Your task to perform on an android device: open app "Google Pay: Save, Pay, Manage" (install if not already installed) Image 0: 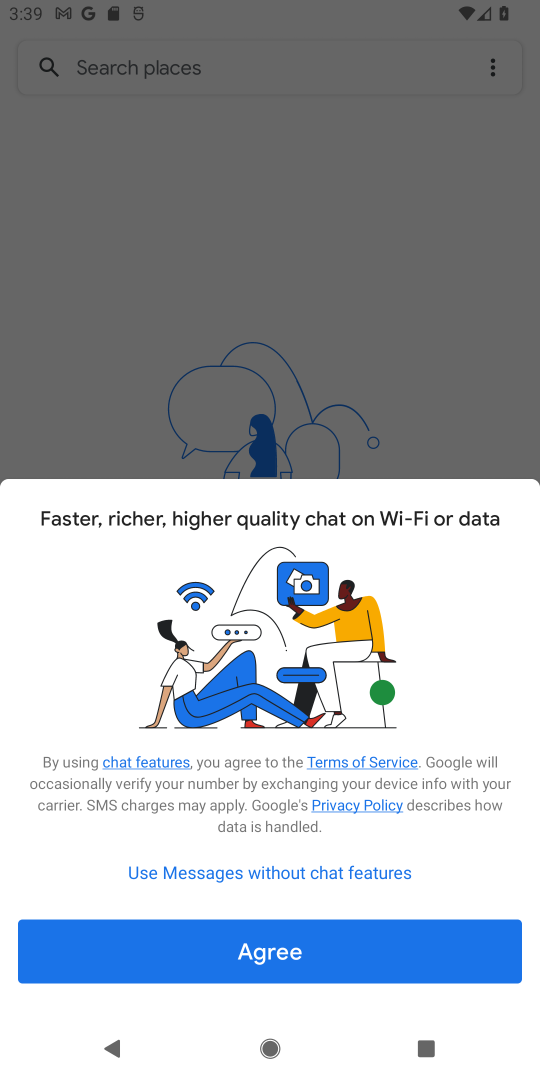
Step 0: press home button
Your task to perform on an android device: open app "Google Pay: Save, Pay, Manage" (install if not already installed) Image 1: 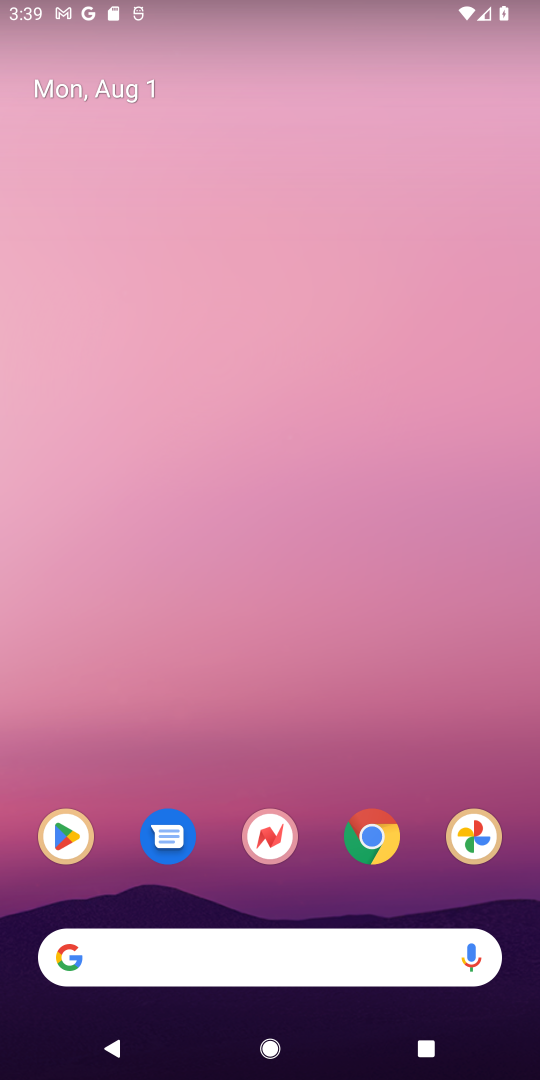
Step 1: drag from (255, 756) to (245, 511)
Your task to perform on an android device: open app "Google Pay: Save, Pay, Manage" (install if not already installed) Image 2: 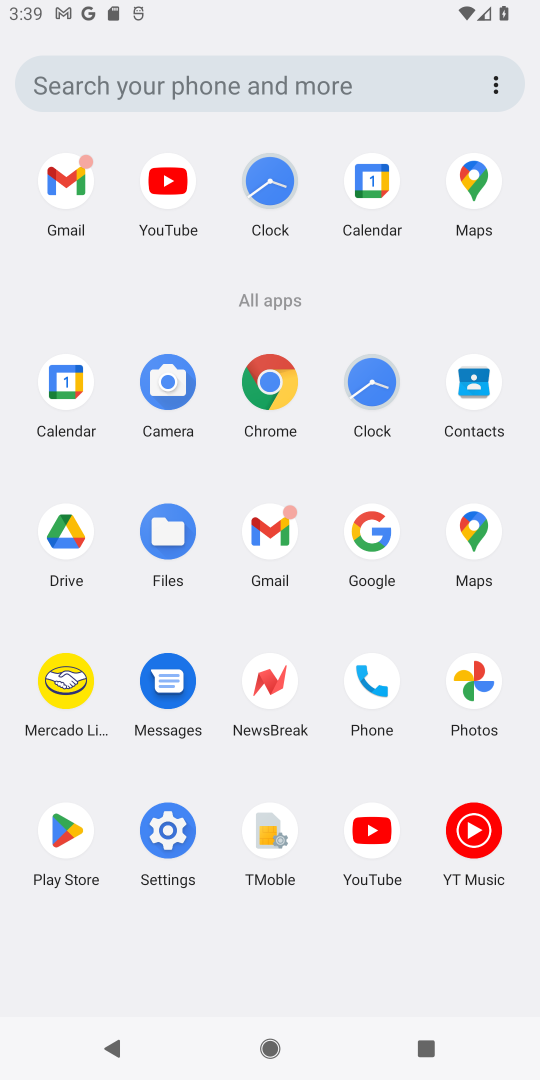
Step 2: click (72, 824)
Your task to perform on an android device: open app "Google Pay: Save, Pay, Manage" (install if not already installed) Image 3: 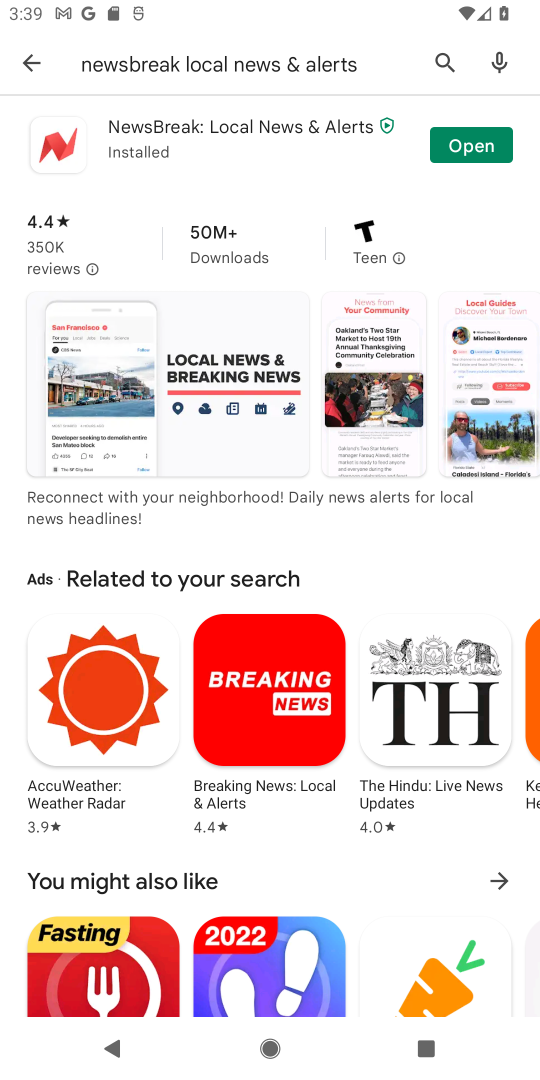
Step 3: click (25, 60)
Your task to perform on an android device: open app "Google Pay: Save, Pay, Manage" (install if not already installed) Image 4: 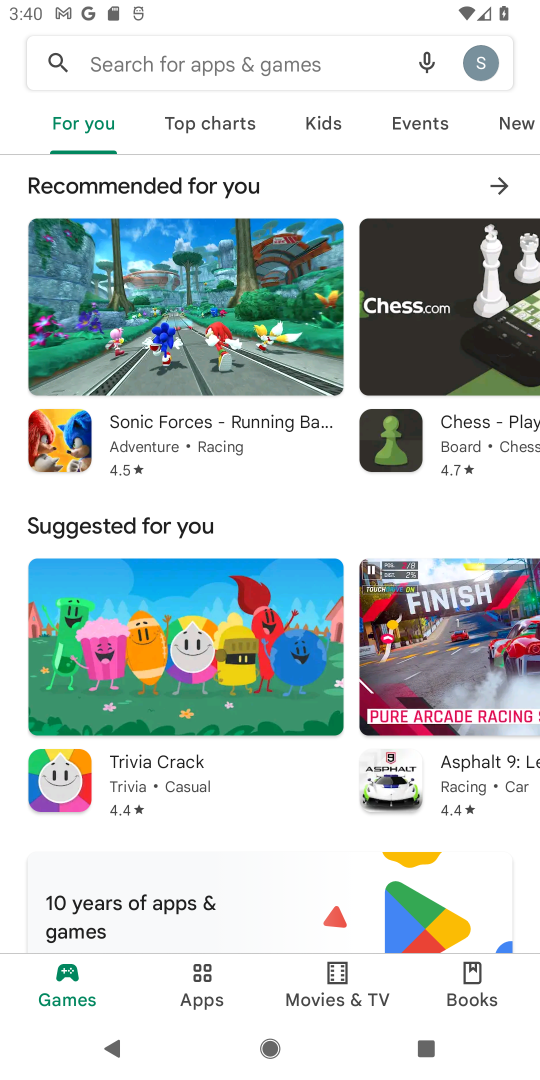
Step 4: type "Google Pay: Save, Pay, Manage"
Your task to perform on an android device: open app "Google Pay: Save, Pay, Manage" (install if not already installed) Image 5: 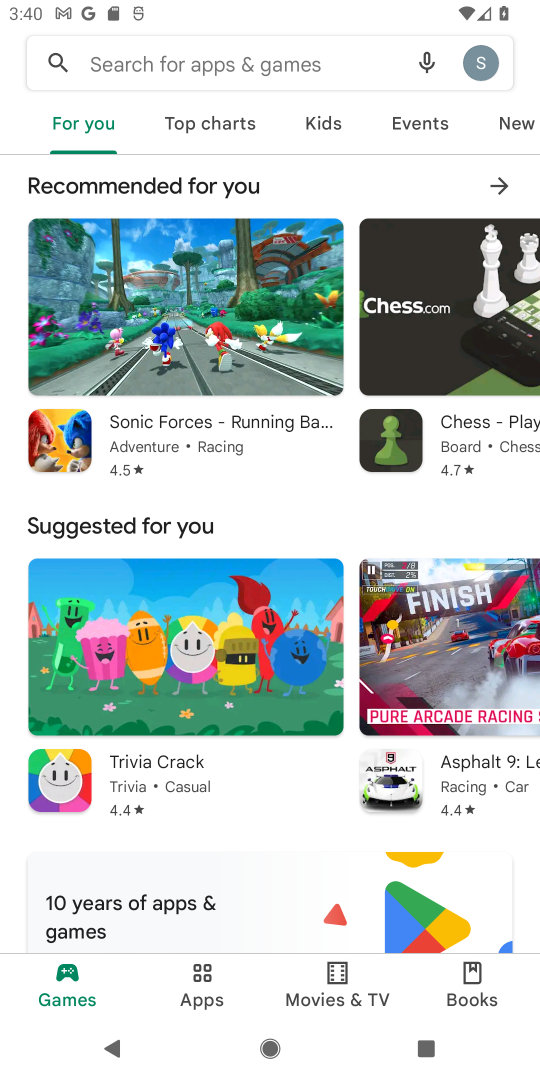
Step 5: click (171, 65)
Your task to perform on an android device: open app "Google Pay: Save, Pay, Manage" (install if not already installed) Image 6: 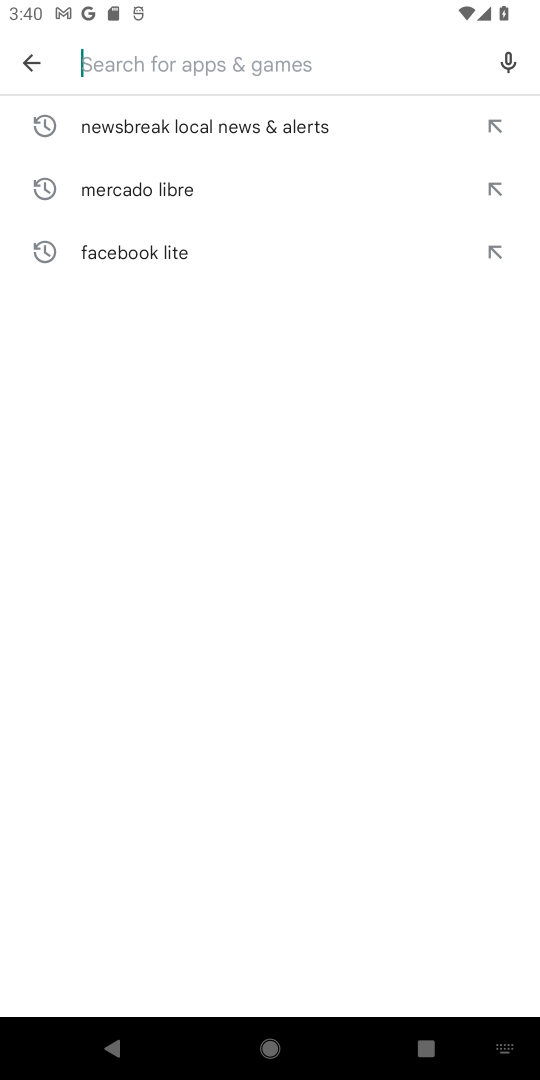
Step 6: type "Google Pay: Save, Pay, Manage"
Your task to perform on an android device: open app "Google Pay: Save, Pay, Manage" (install if not already installed) Image 7: 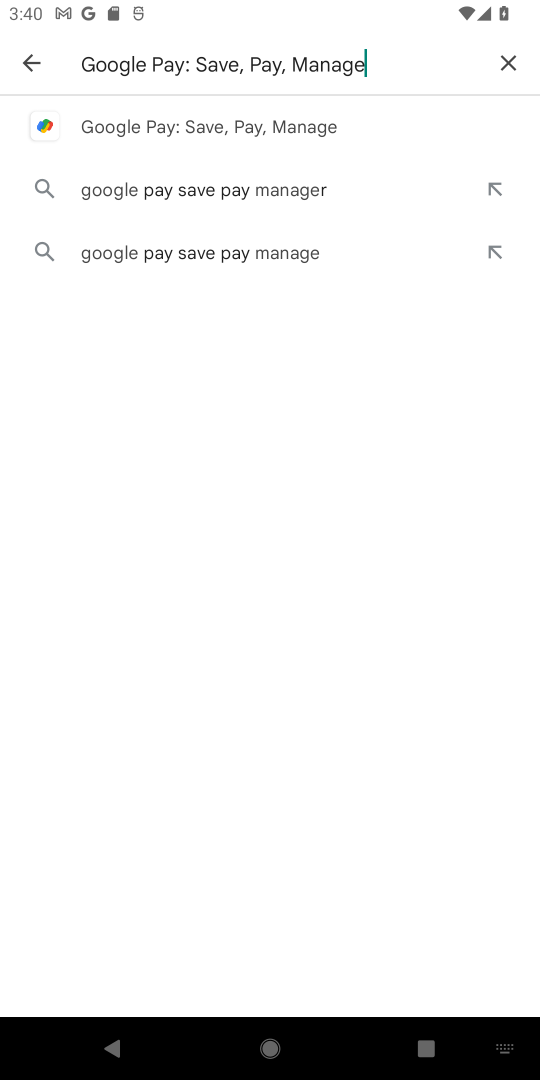
Step 7: click (291, 118)
Your task to perform on an android device: open app "Google Pay: Save, Pay, Manage" (install if not already installed) Image 8: 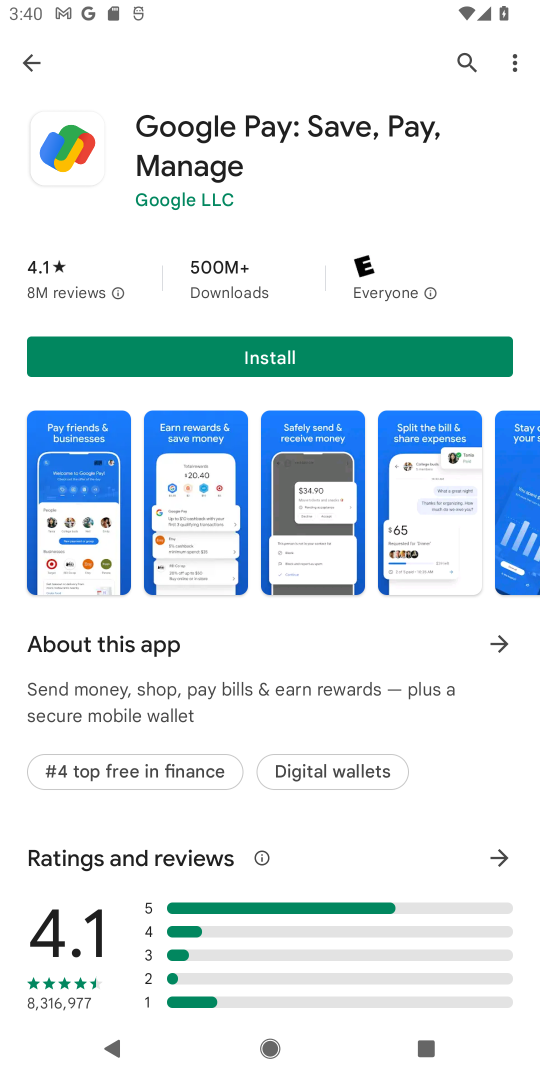
Step 8: click (272, 350)
Your task to perform on an android device: open app "Google Pay: Save, Pay, Manage" (install if not already installed) Image 9: 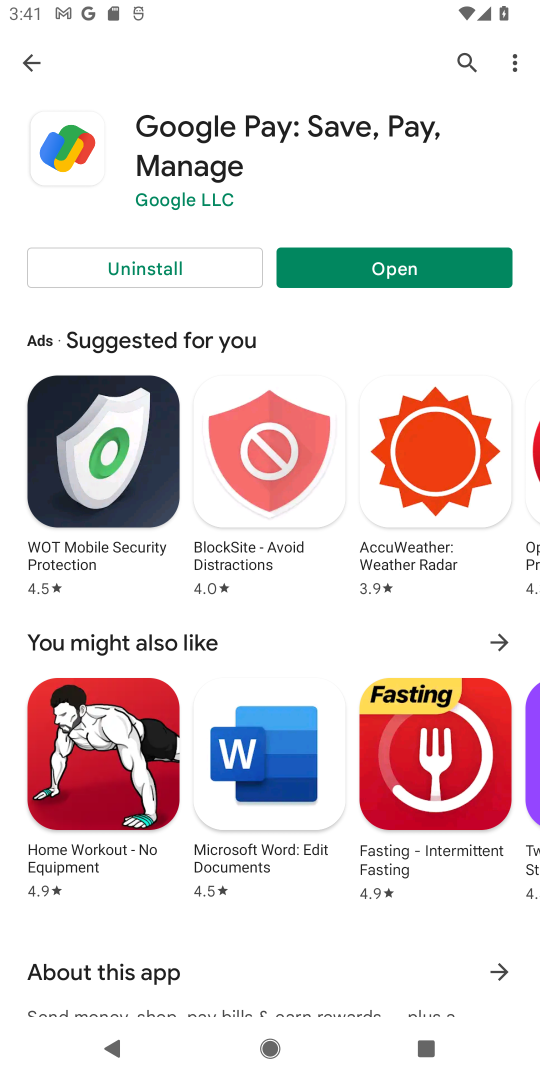
Step 9: click (412, 271)
Your task to perform on an android device: open app "Google Pay: Save, Pay, Manage" (install if not already installed) Image 10: 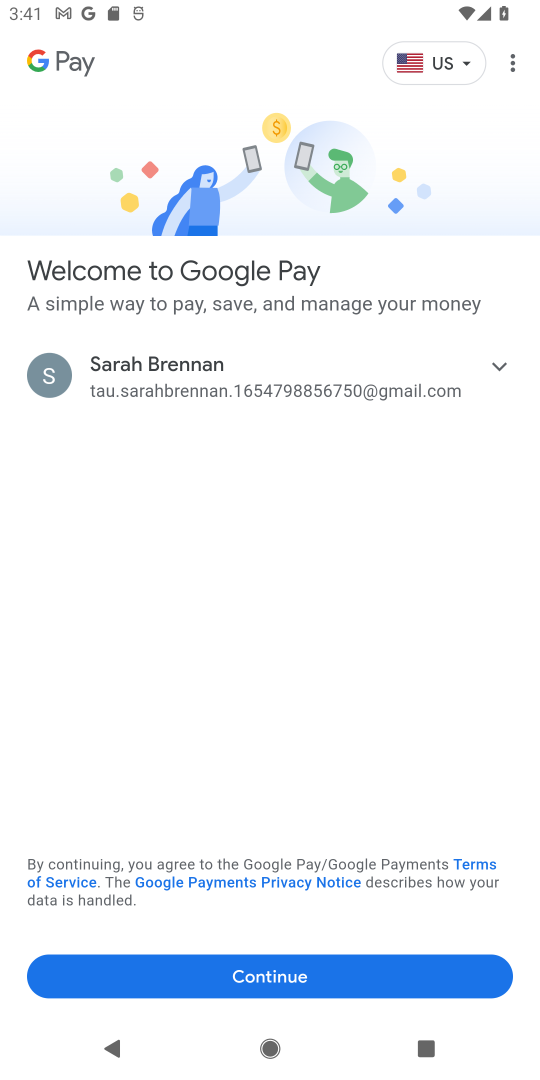
Step 10: task complete